Your task to perform on an android device: Open the calendar and show me this week's events Image 0: 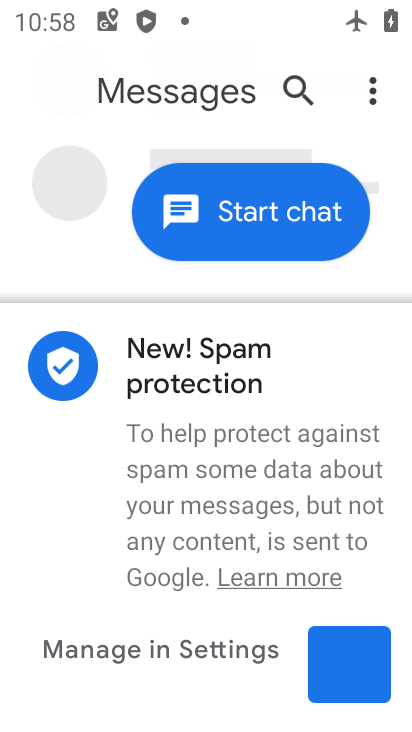
Step 0: press home button
Your task to perform on an android device: Open the calendar and show me this week's events Image 1: 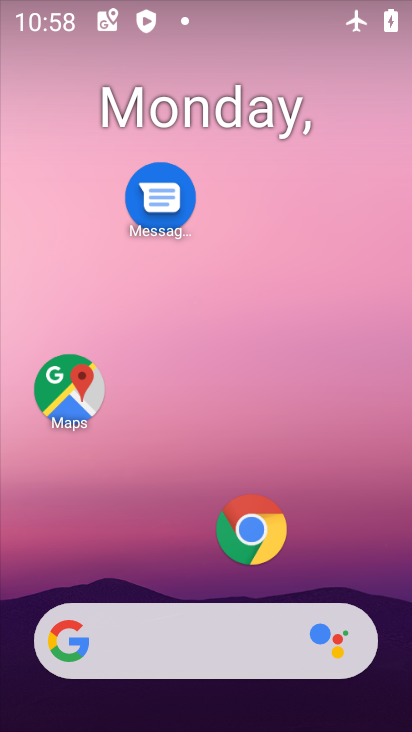
Step 1: drag from (183, 542) to (211, 12)
Your task to perform on an android device: Open the calendar and show me this week's events Image 2: 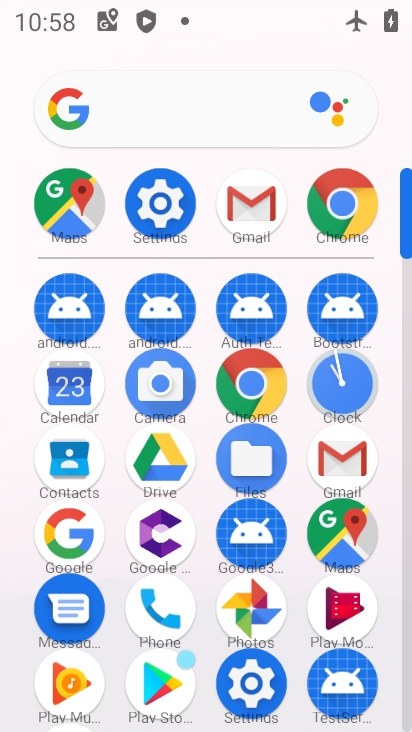
Step 2: click (77, 399)
Your task to perform on an android device: Open the calendar and show me this week's events Image 3: 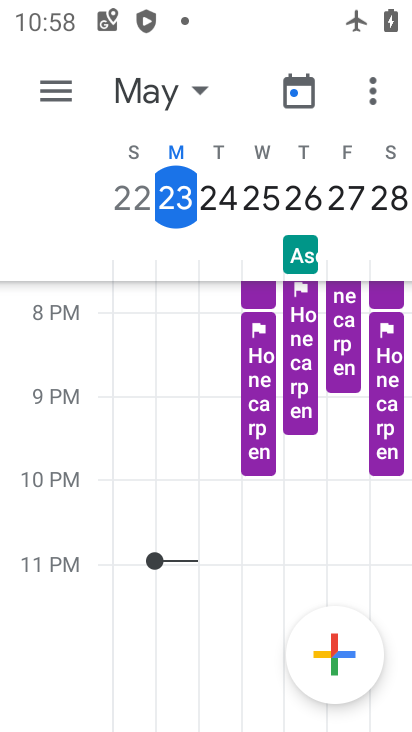
Step 3: task complete